Your task to perform on an android device: Open Google Chrome and click the shortcut for Amazon.com Image 0: 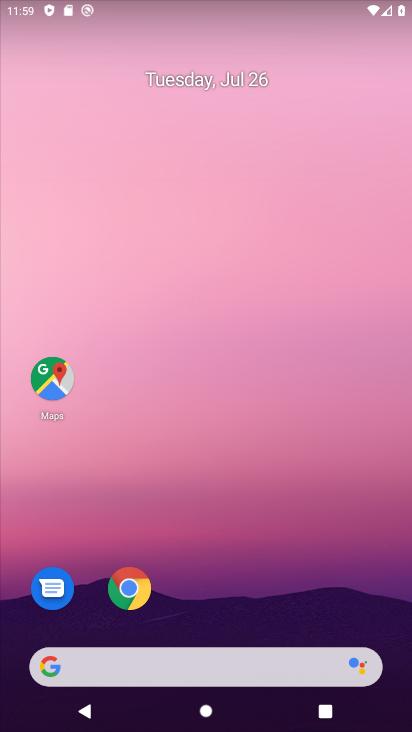
Step 0: click (135, 598)
Your task to perform on an android device: Open Google Chrome and click the shortcut for Amazon.com Image 1: 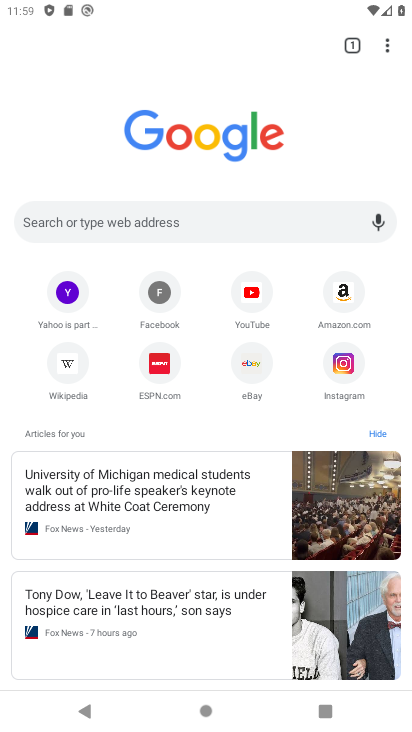
Step 1: click (339, 299)
Your task to perform on an android device: Open Google Chrome and click the shortcut for Amazon.com Image 2: 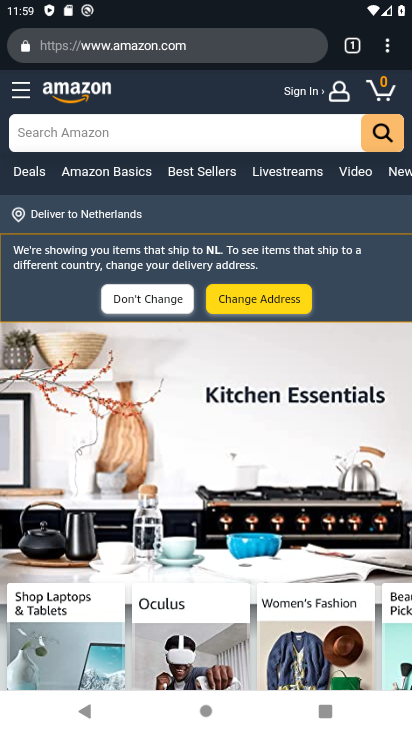
Step 2: task complete